Your task to perform on an android device: Go to Reddit.com Image 0: 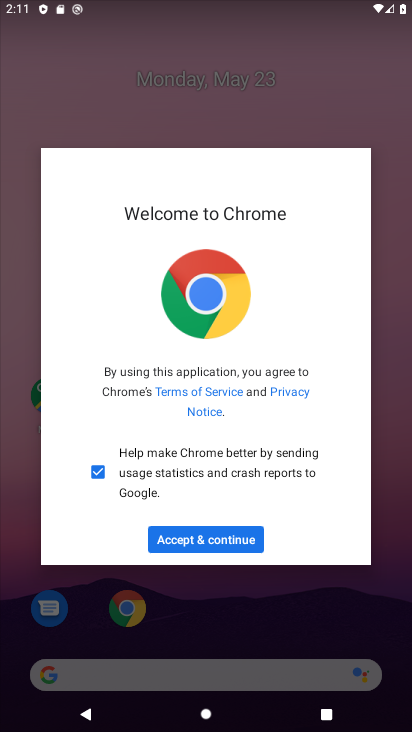
Step 0: click (299, 627)
Your task to perform on an android device: Go to Reddit.com Image 1: 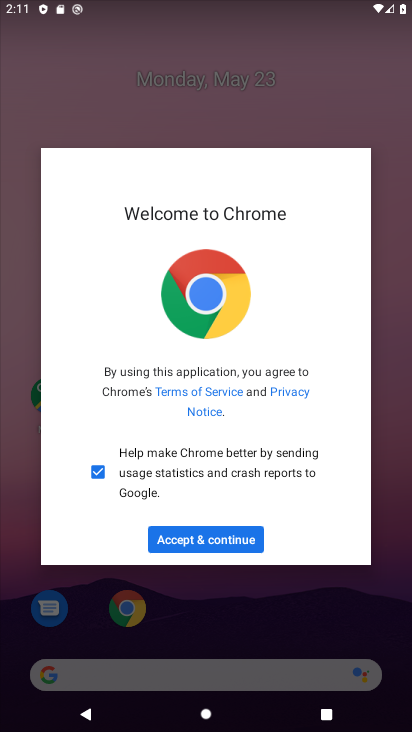
Step 1: click (166, 525)
Your task to perform on an android device: Go to Reddit.com Image 2: 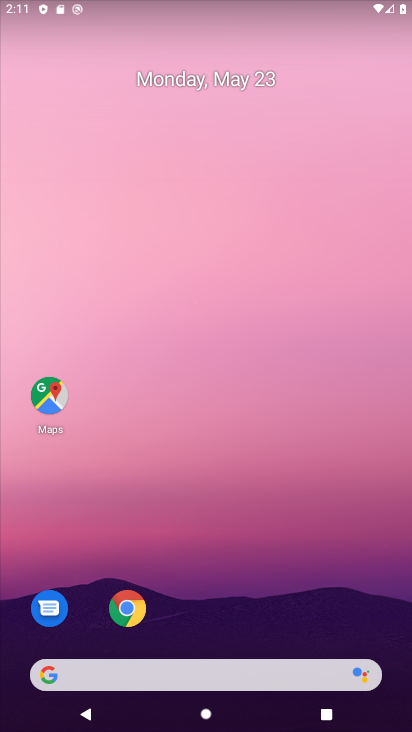
Step 2: drag from (280, 615) to (301, 222)
Your task to perform on an android device: Go to Reddit.com Image 3: 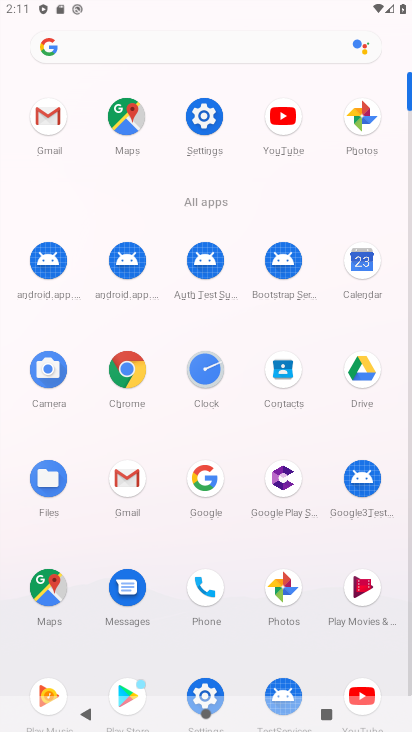
Step 3: click (124, 366)
Your task to perform on an android device: Go to Reddit.com Image 4: 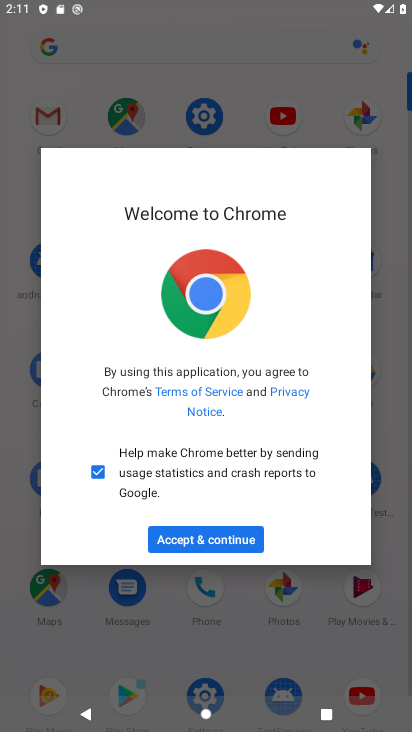
Step 4: click (196, 543)
Your task to perform on an android device: Go to Reddit.com Image 5: 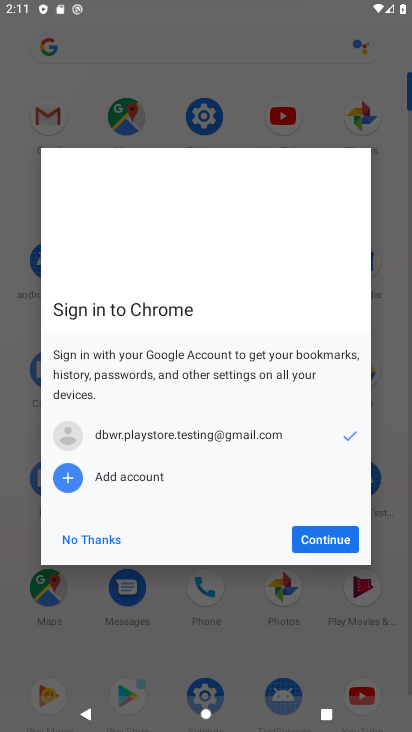
Step 5: click (339, 533)
Your task to perform on an android device: Go to Reddit.com Image 6: 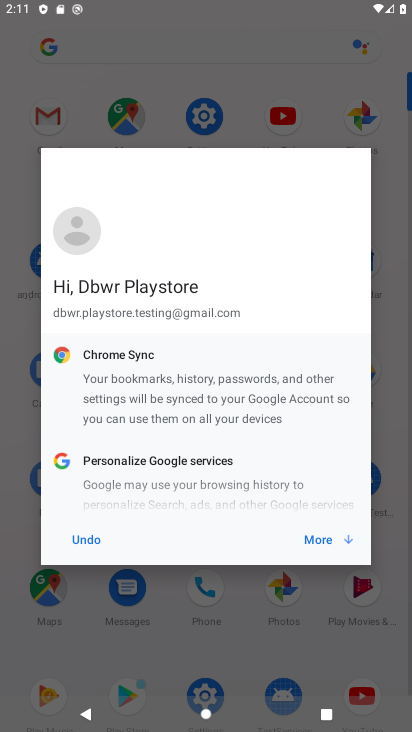
Step 6: click (321, 547)
Your task to perform on an android device: Go to Reddit.com Image 7: 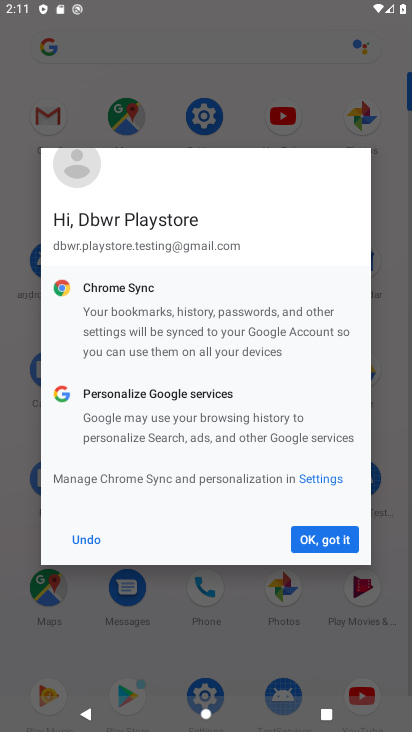
Step 7: click (315, 531)
Your task to perform on an android device: Go to Reddit.com Image 8: 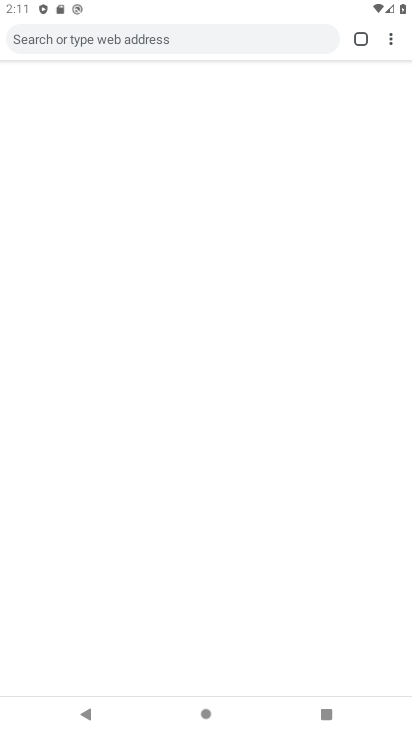
Step 8: click (386, 32)
Your task to perform on an android device: Go to Reddit.com Image 9: 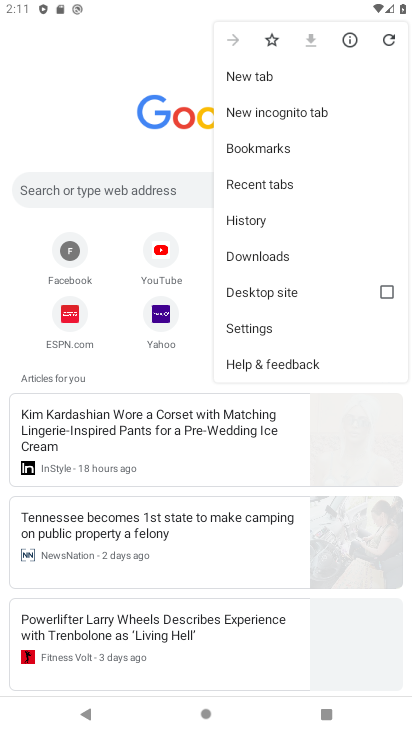
Step 9: click (101, 177)
Your task to perform on an android device: Go to Reddit.com Image 10: 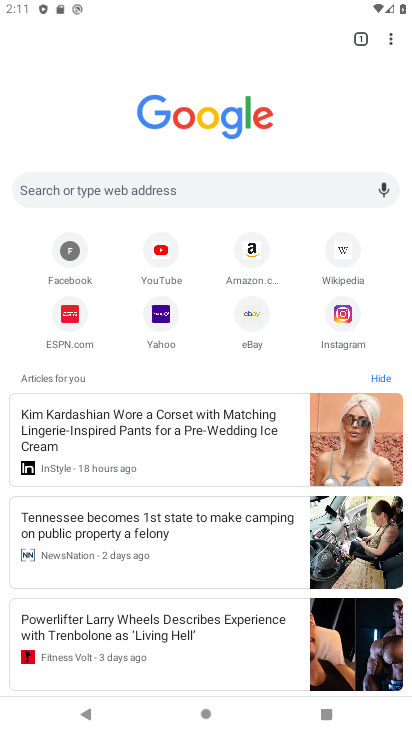
Step 10: click (224, 181)
Your task to perform on an android device: Go to Reddit.com Image 11: 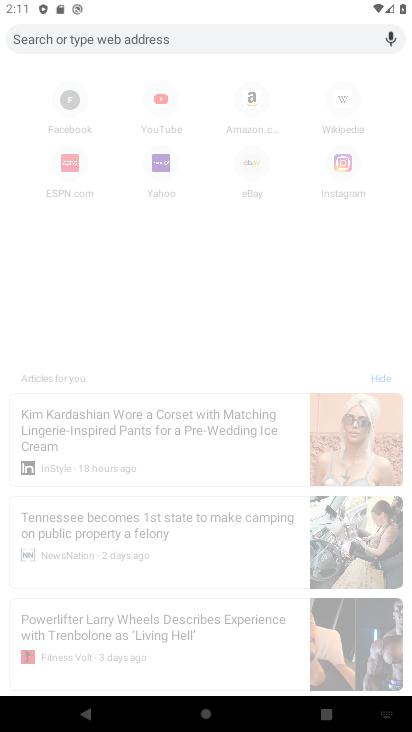
Step 11: type "Reddit.com"
Your task to perform on an android device: Go to Reddit.com Image 12: 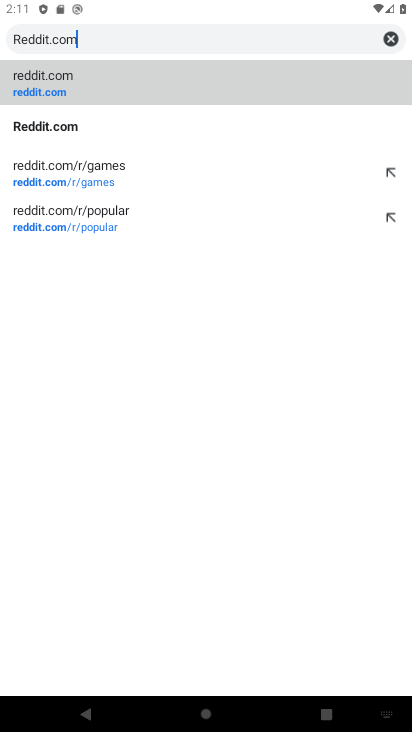
Step 12: click (165, 82)
Your task to perform on an android device: Go to Reddit.com Image 13: 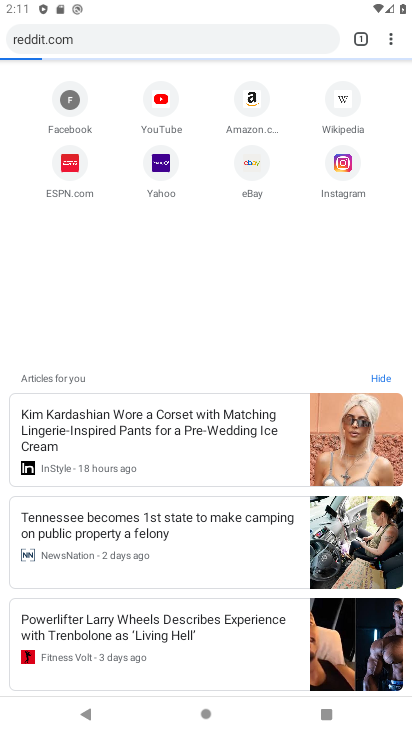
Step 13: task complete